Your task to perform on an android device: show emergency info Image 0: 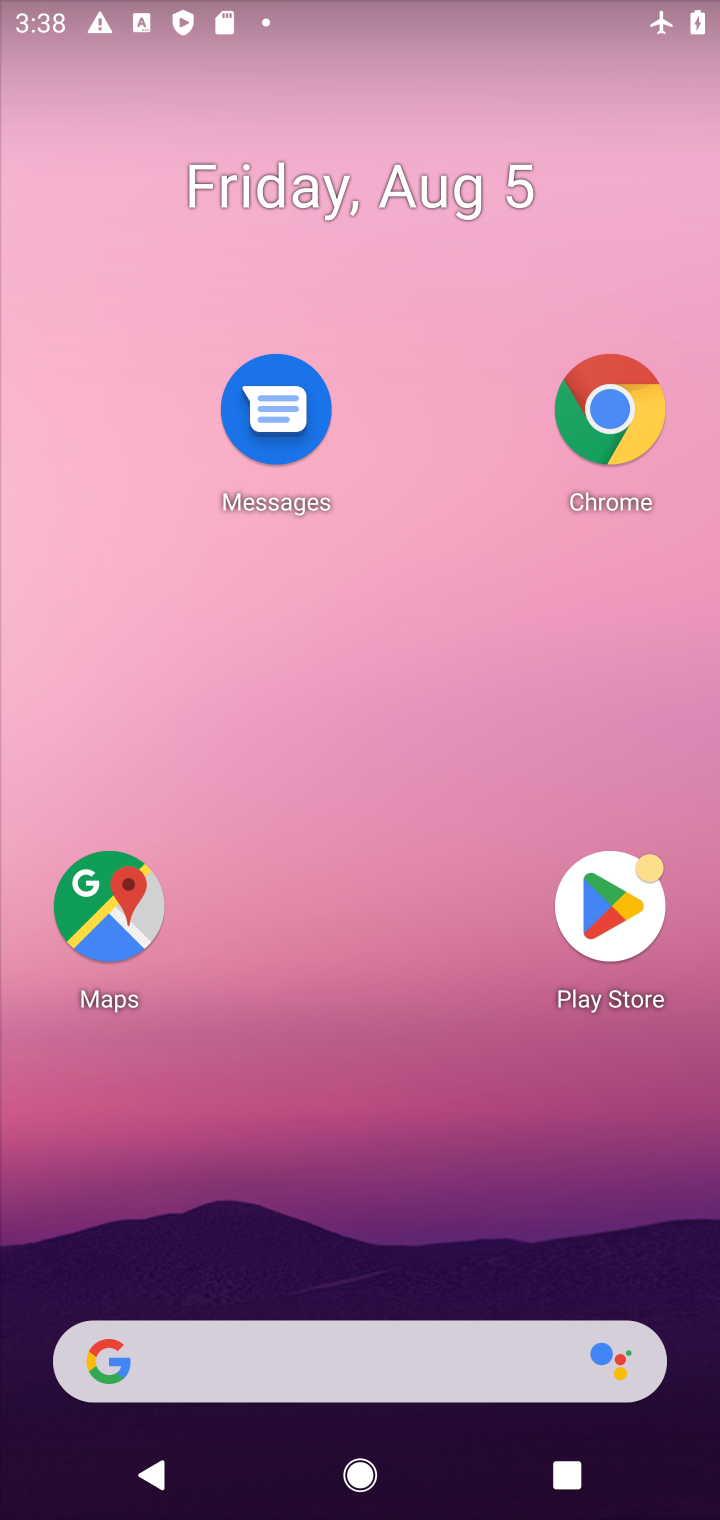
Step 0: drag from (346, 1234) to (494, 289)
Your task to perform on an android device: show emergency info Image 1: 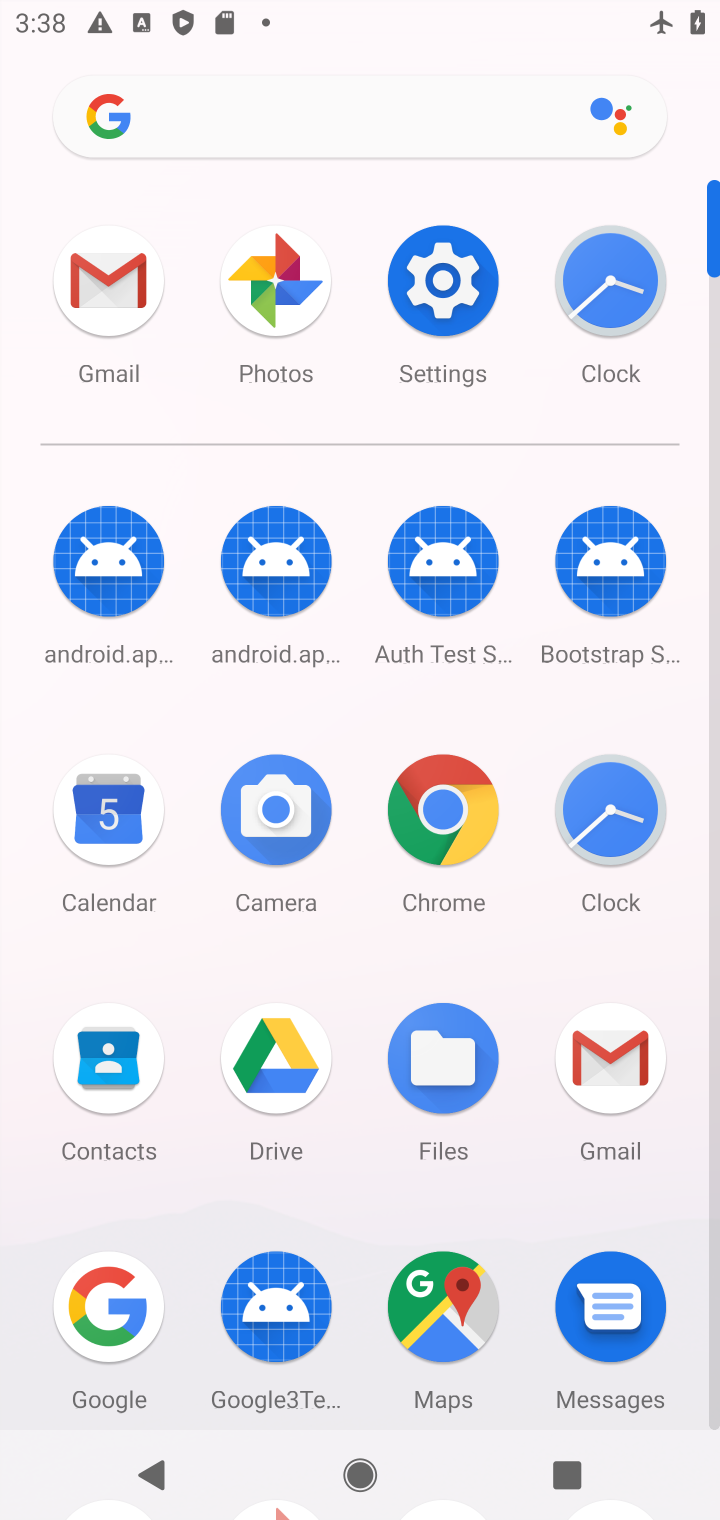
Step 1: click (411, 305)
Your task to perform on an android device: show emergency info Image 2: 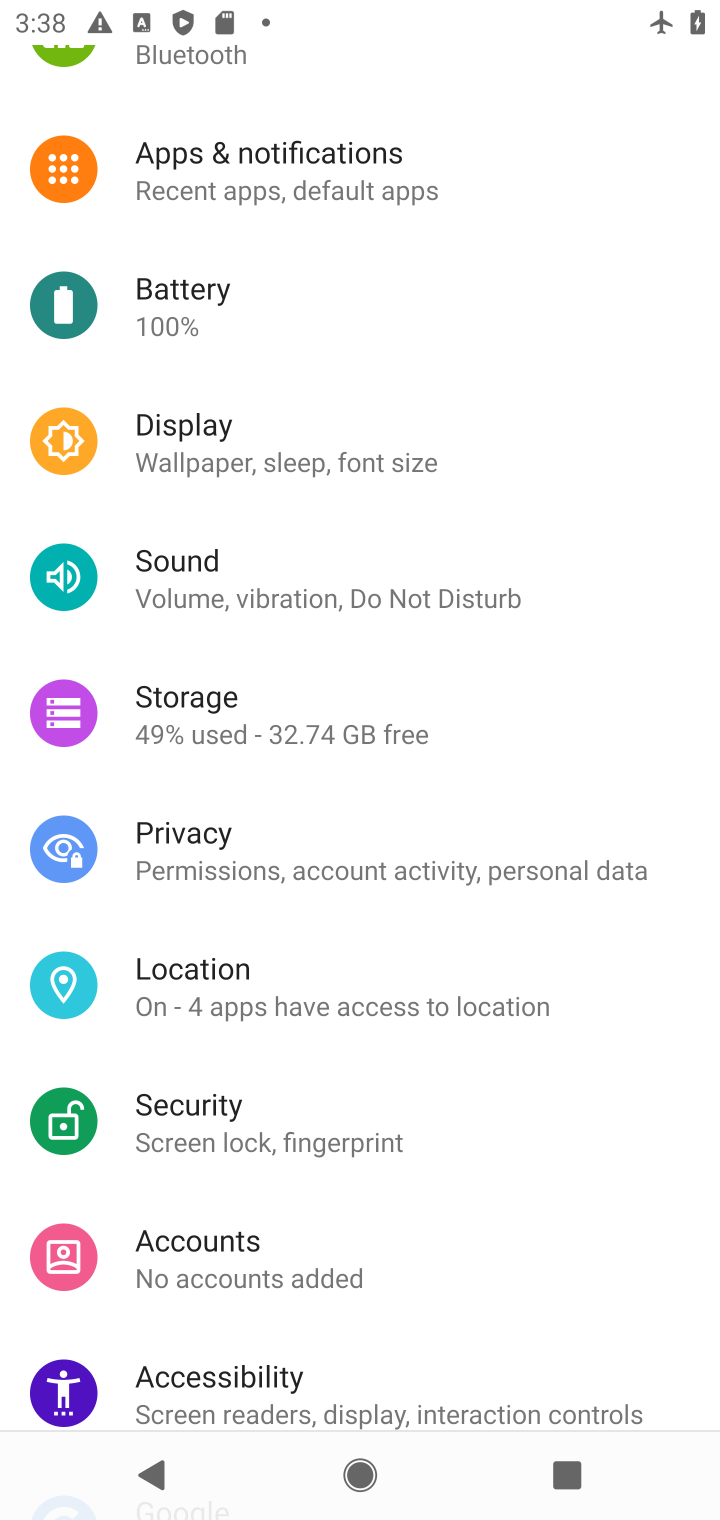
Step 2: drag from (369, 1321) to (369, 443)
Your task to perform on an android device: show emergency info Image 3: 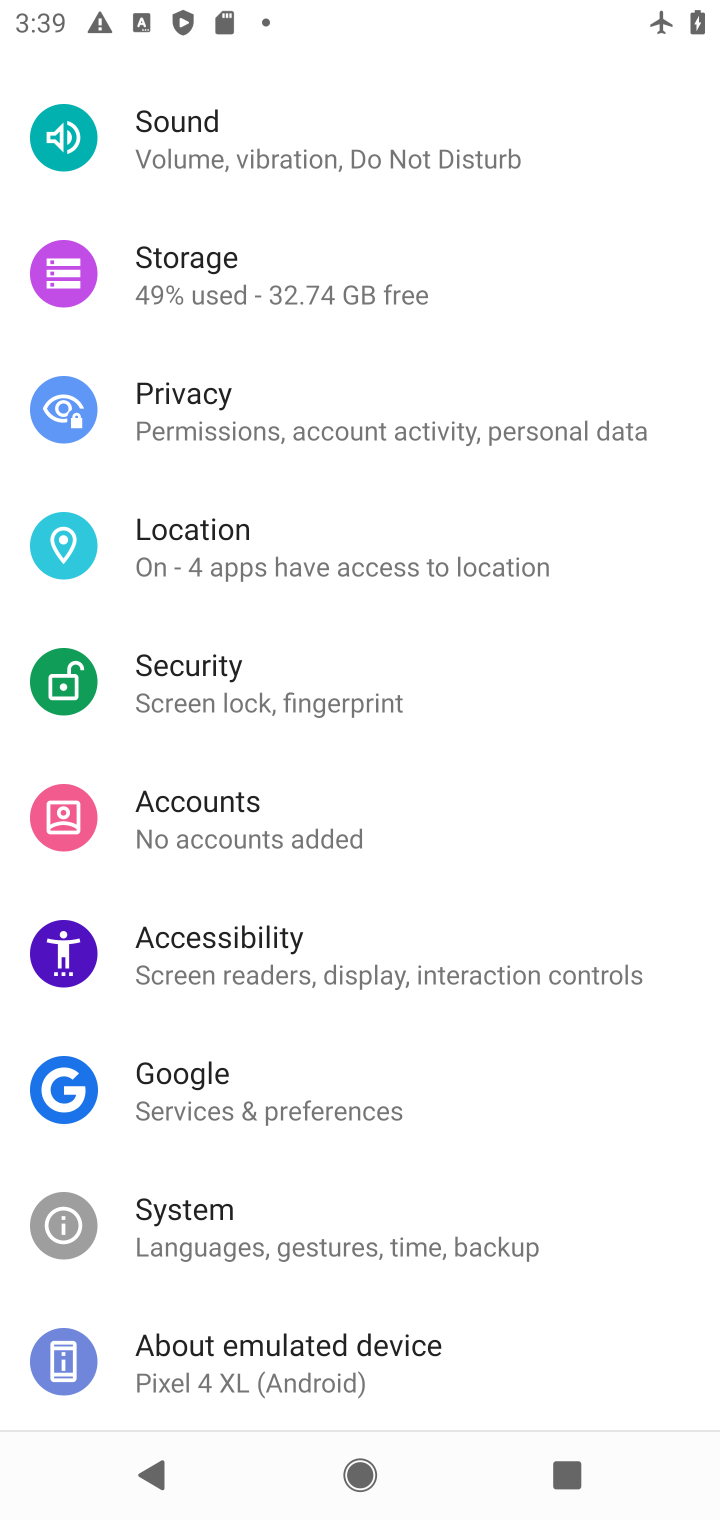
Step 3: click (292, 1333)
Your task to perform on an android device: show emergency info Image 4: 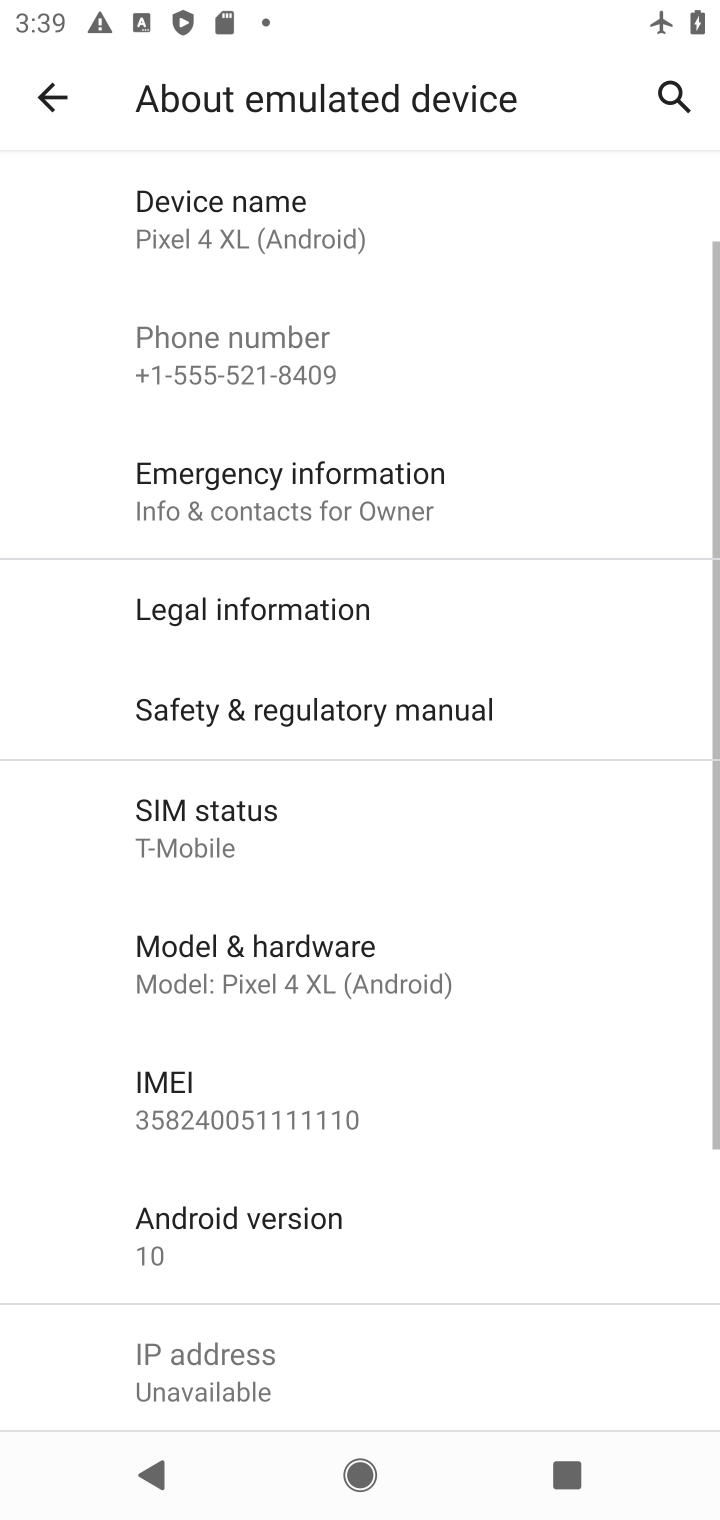
Step 4: click (334, 527)
Your task to perform on an android device: show emergency info Image 5: 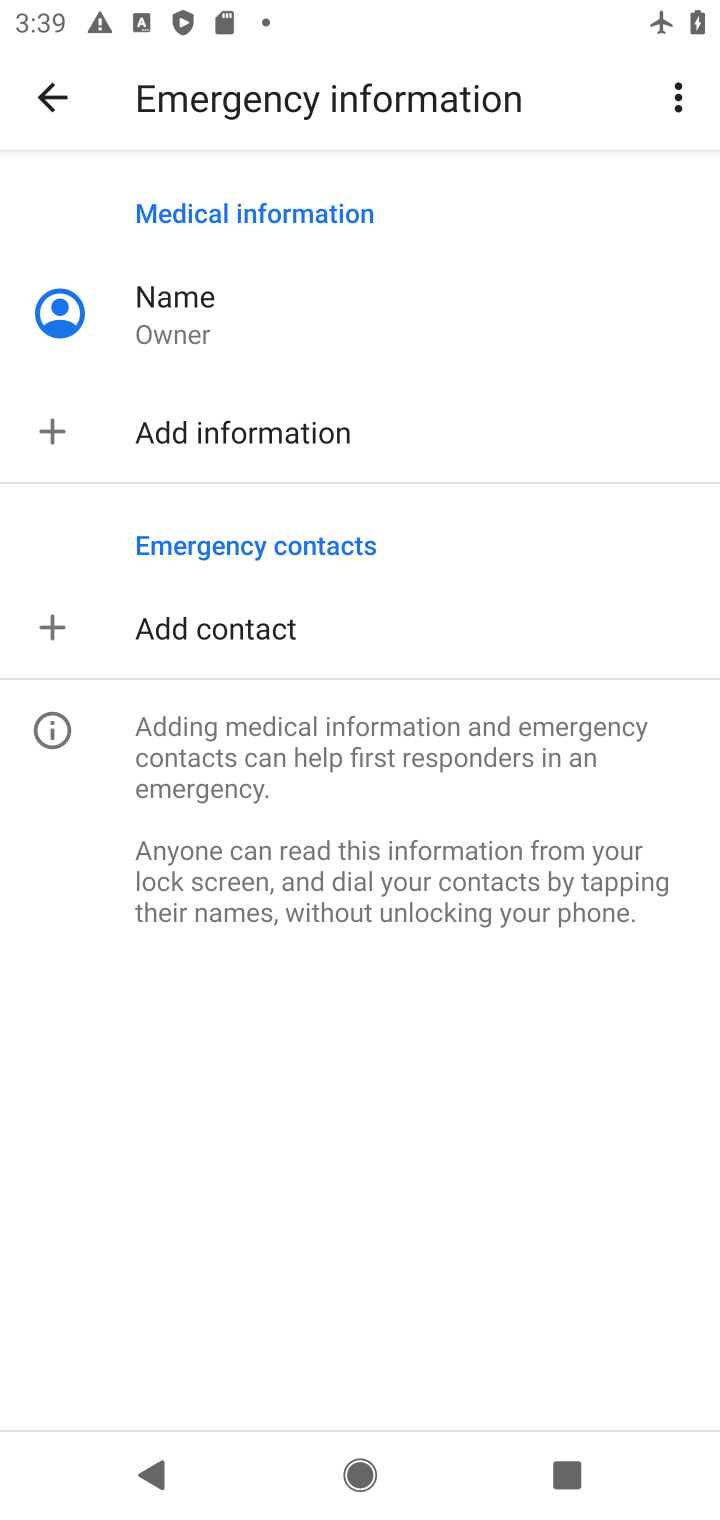
Step 5: task complete